Your task to perform on an android device: Check the news Image 0: 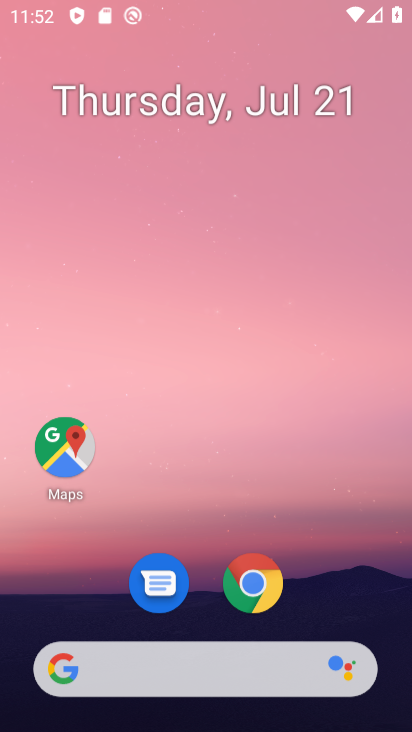
Step 0: press home button
Your task to perform on an android device: Check the news Image 1: 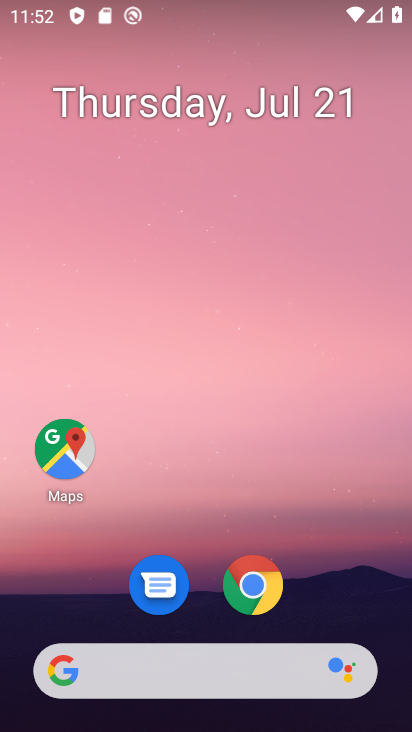
Step 1: click (152, 665)
Your task to perform on an android device: Check the news Image 2: 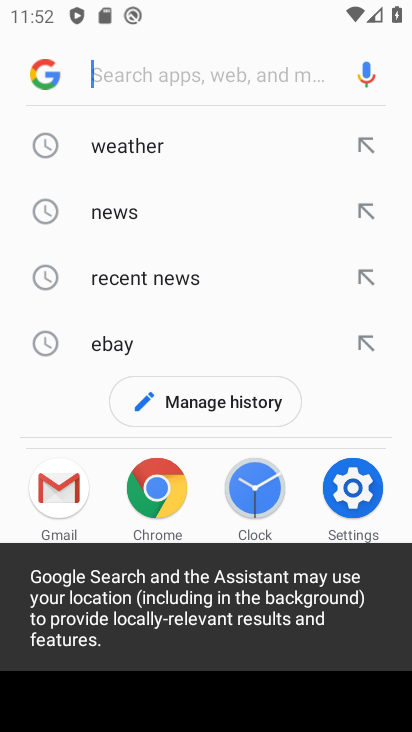
Step 2: click (113, 205)
Your task to perform on an android device: Check the news Image 3: 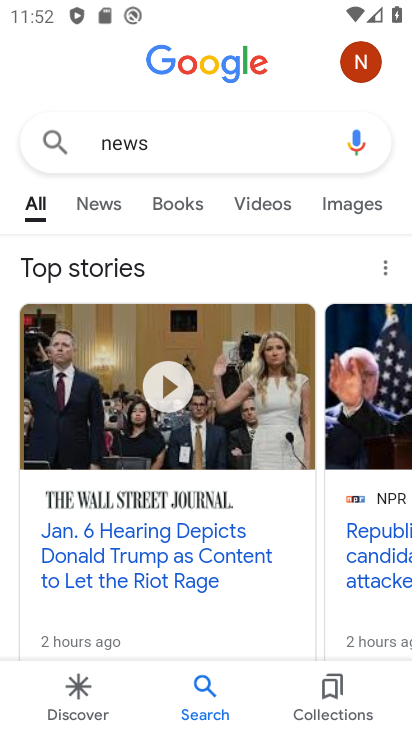
Step 3: click (105, 203)
Your task to perform on an android device: Check the news Image 4: 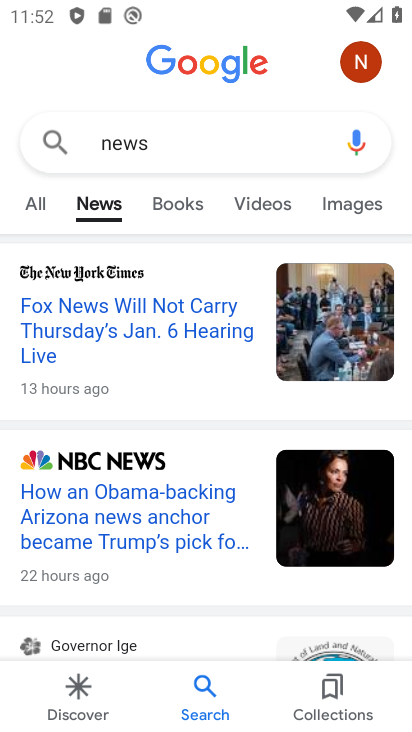
Step 4: task complete